Your task to perform on an android device: turn notification dots on Image 0: 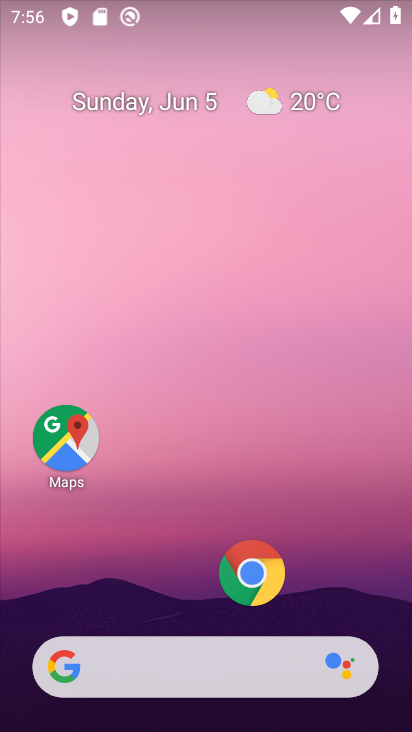
Step 0: drag from (203, 620) to (173, 3)
Your task to perform on an android device: turn notification dots on Image 1: 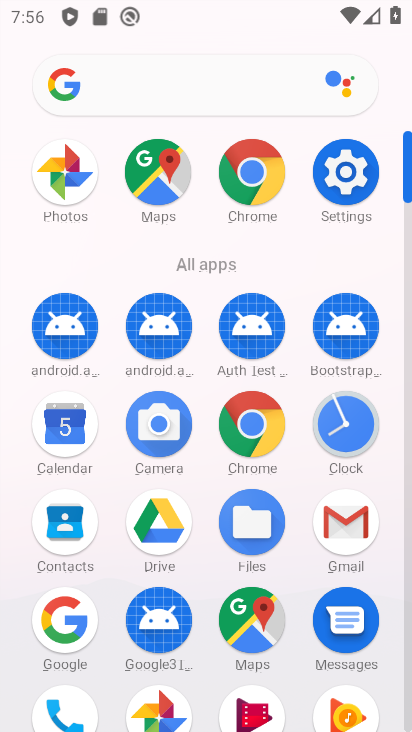
Step 1: click (341, 164)
Your task to perform on an android device: turn notification dots on Image 2: 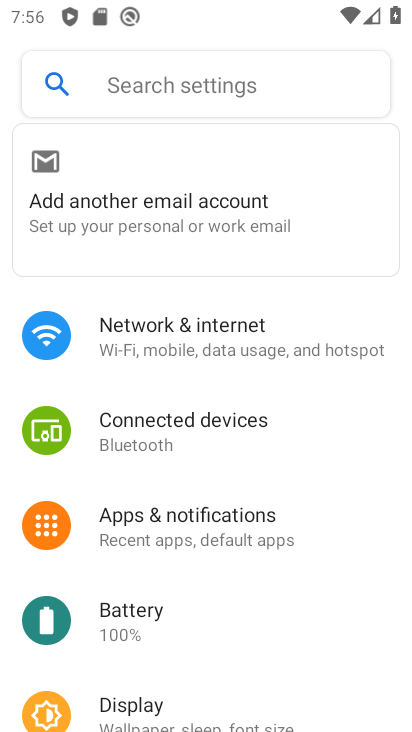
Step 2: click (167, 551)
Your task to perform on an android device: turn notification dots on Image 3: 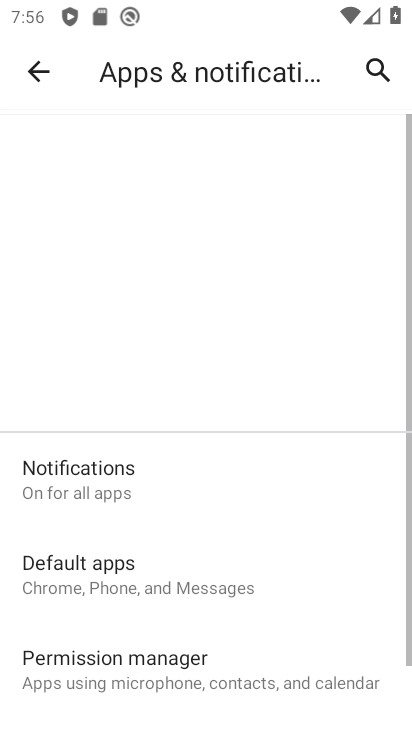
Step 3: click (113, 491)
Your task to perform on an android device: turn notification dots on Image 4: 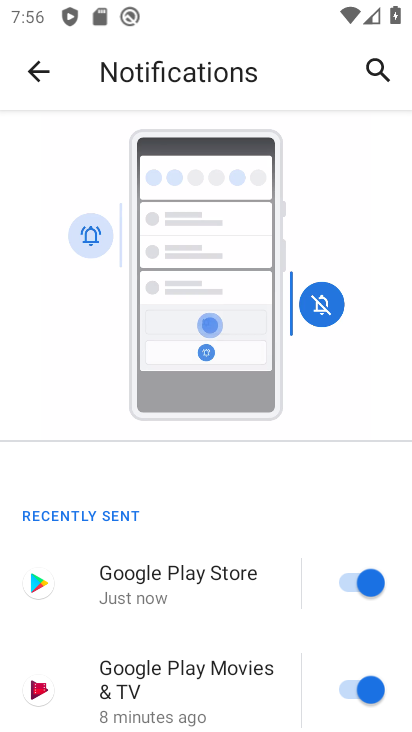
Step 4: drag from (191, 620) to (135, 84)
Your task to perform on an android device: turn notification dots on Image 5: 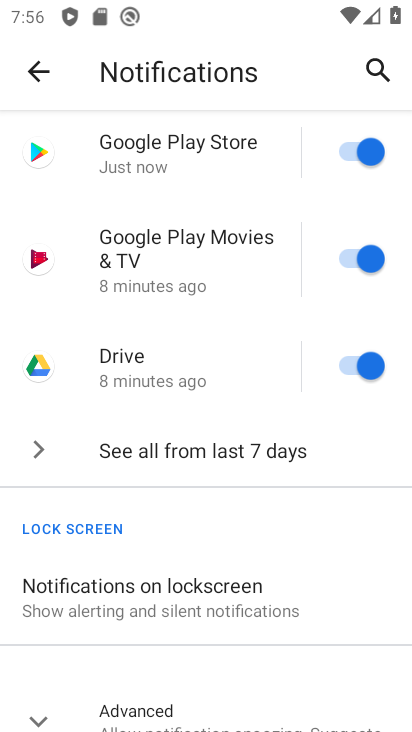
Step 5: drag from (231, 648) to (238, 248)
Your task to perform on an android device: turn notification dots on Image 6: 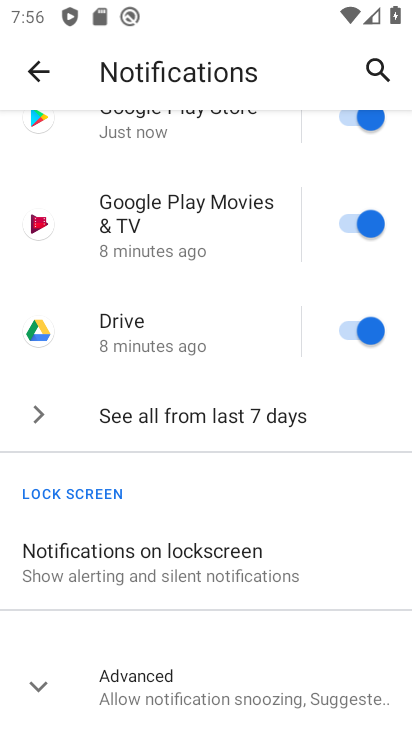
Step 6: click (238, 700)
Your task to perform on an android device: turn notification dots on Image 7: 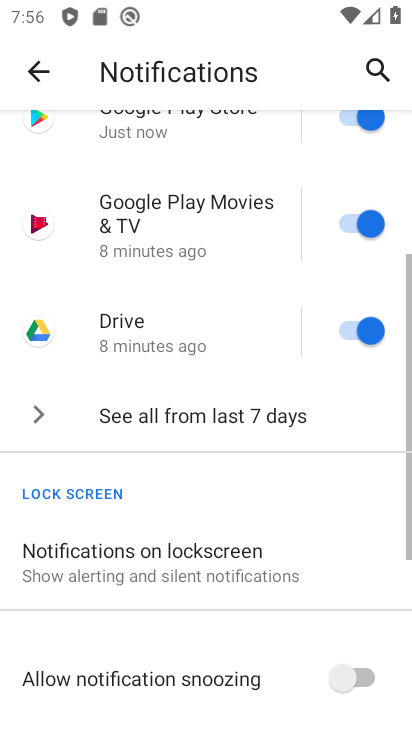
Step 7: drag from (238, 700) to (114, 231)
Your task to perform on an android device: turn notification dots on Image 8: 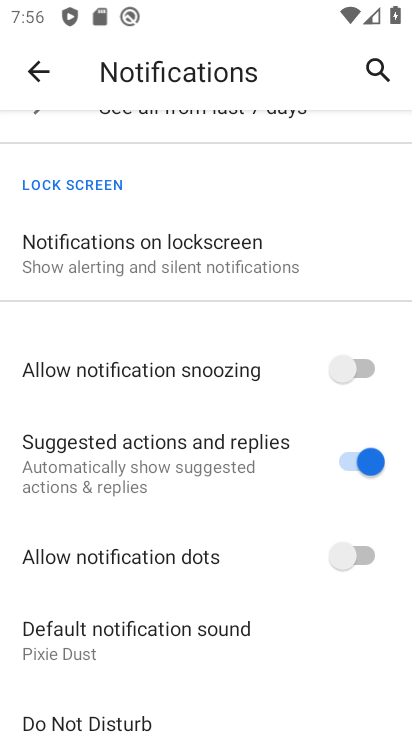
Step 8: click (330, 547)
Your task to perform on an android device: turn notification dots on Image 9: 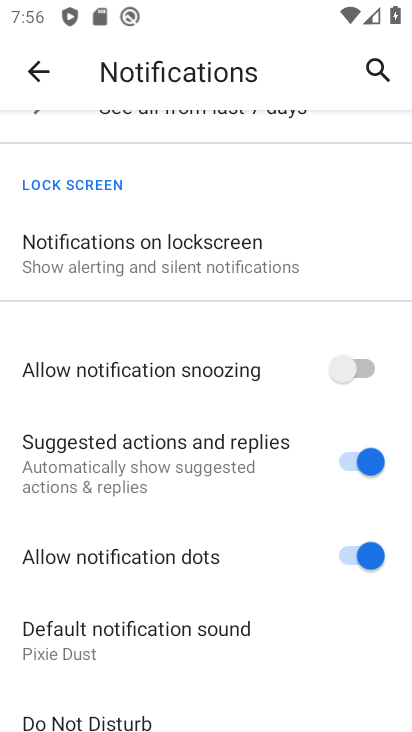
Step 9: task complete